Your task to perform on an android device: refresh tabs in the chrome app Image 0: 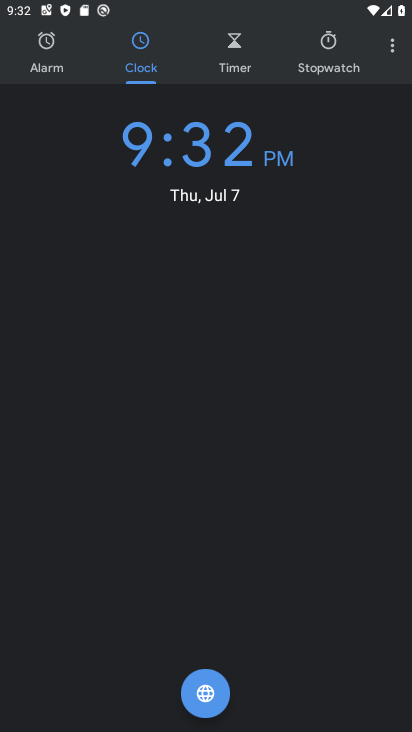
Step 0: press home button
Your task to perform on an android device: refresh tabs in the chrome app Image 1: 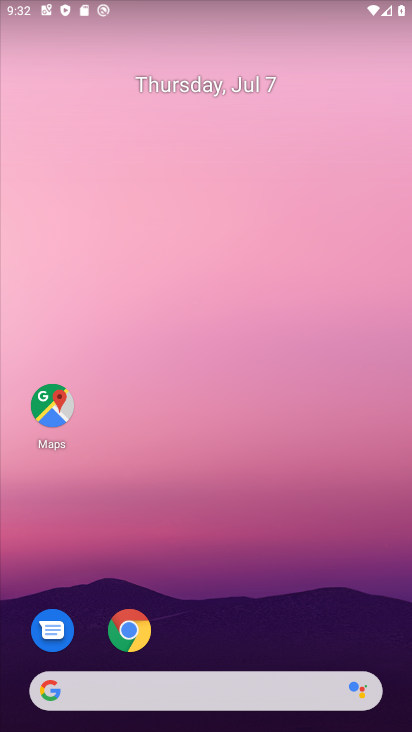
Step 1: drag from (171, 626) to (207, 261)
Your task to perform on an android device: refresh tabs in the chrome app Image 2: 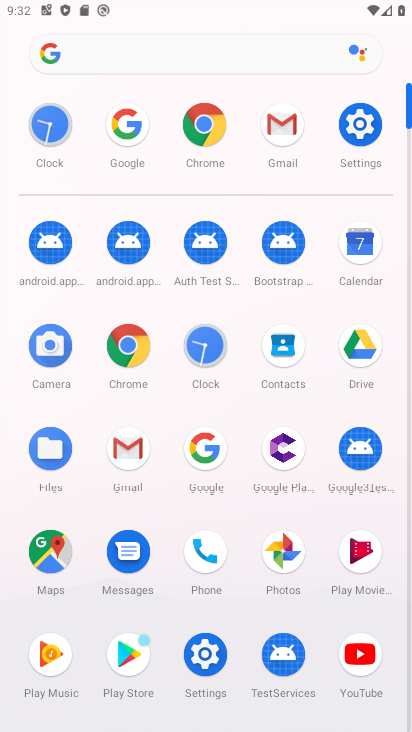
Step 2: click (197, 139)
Your task to perform on an android device: refresh tabs in the chrome app Image 3: 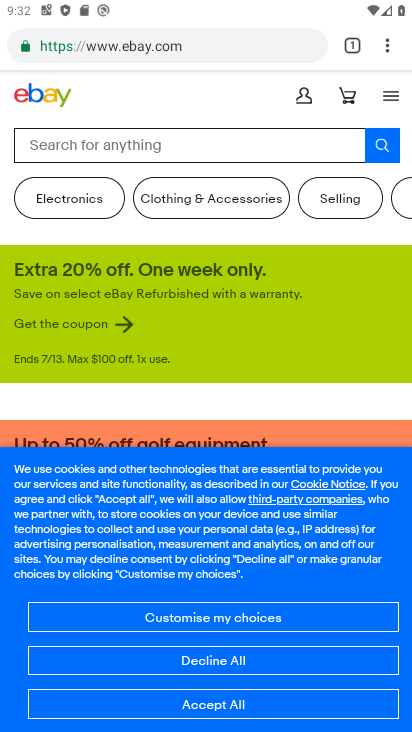
Step 3: click (386, 41)
Your task to perform on an android device: refresh tabs in the chrome app Image 4: 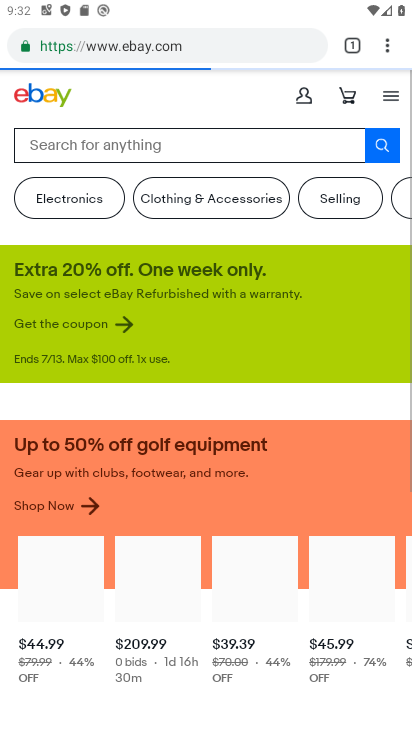
Step 4: click (386, 41)
Your task to perform on an android device: refresh tabs in the chrome app Image 5: 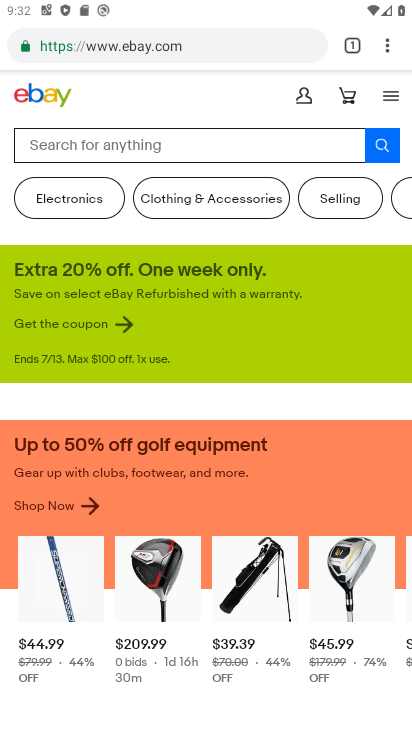
Step 5: click (387, 41)
Your task to perform on an android device: refresh tabs in the chrome app Image 6: 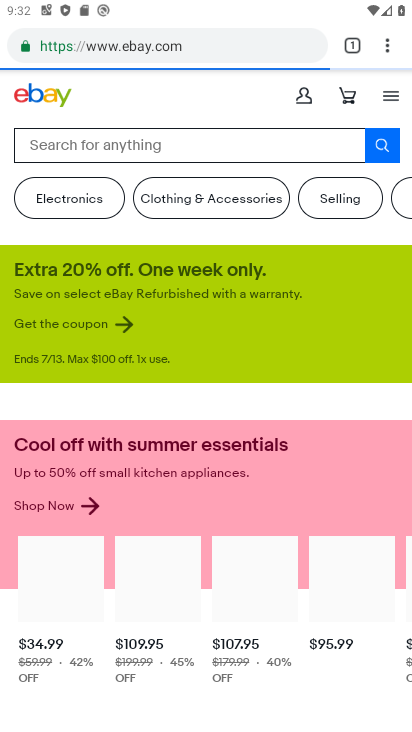
Step 6: click (387, 41)
Your task to perform on an android device: refresh tabs in the chrome app Image 7: 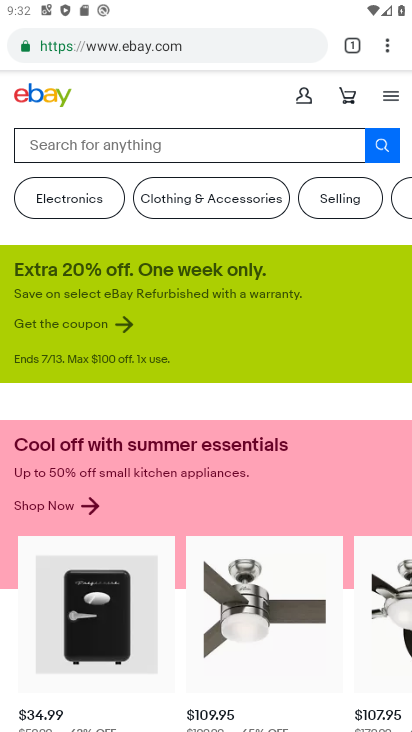
Step 7: click (393, 46)
Your task to perform on an android device: refresh tabs in the chrome app Image 8: 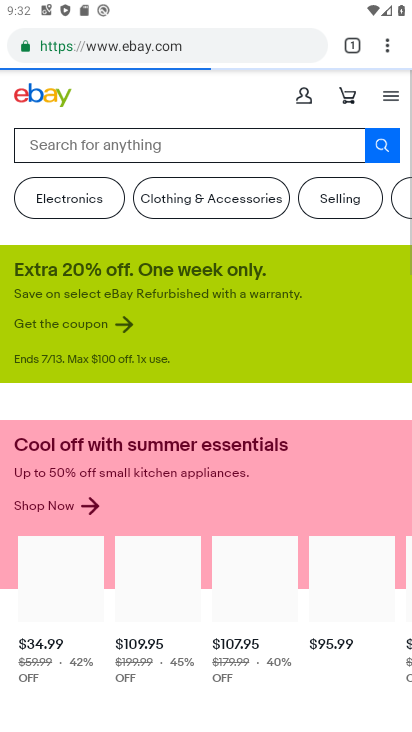
Step 8: click (391, 43)
Your task to perform on an android device: refresh tabs in the chrome app Image 9: 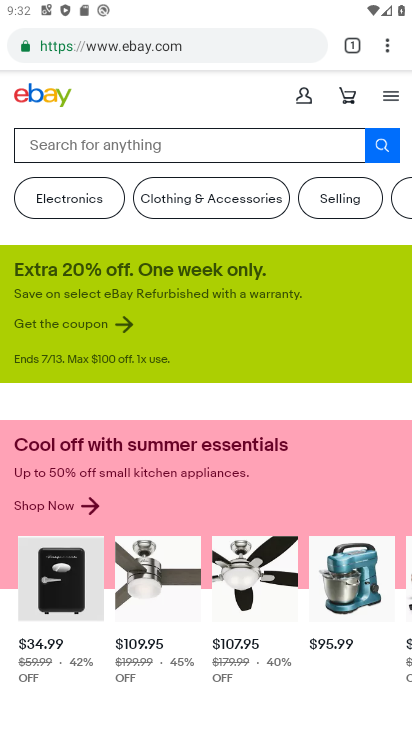
Step 9: click (391, 43)
Your task to perform on an android device: refresh tabs in the chrome app Image 10: 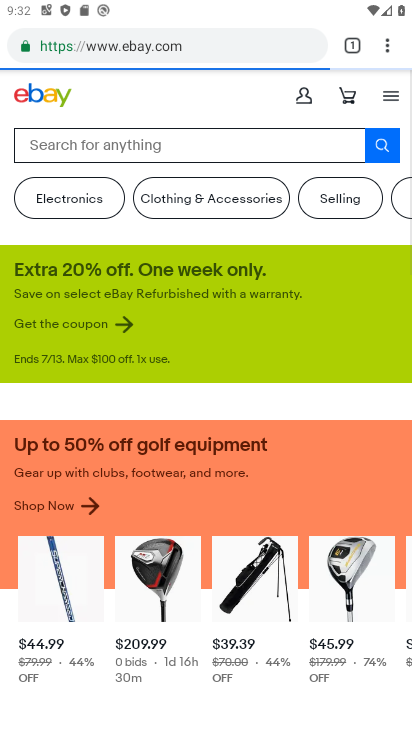
Step 10: click (391, 43)
Your task to perform on an android device: refresh tabs in the chrome app Image 11: 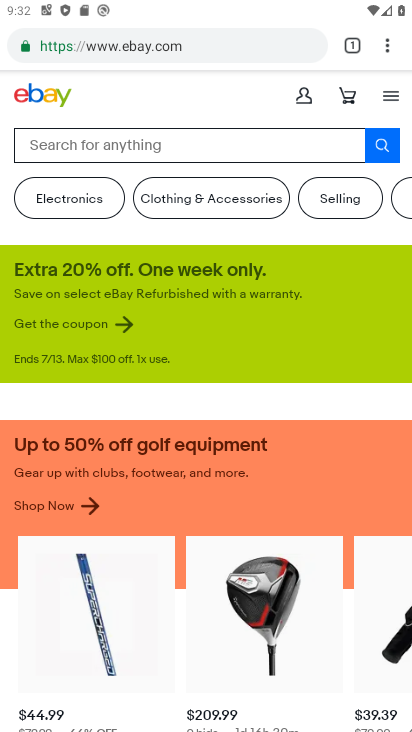
Step 11: click (391, 55)
Your task to perform on an android device: refresh tabs in the chrome app Image 12: 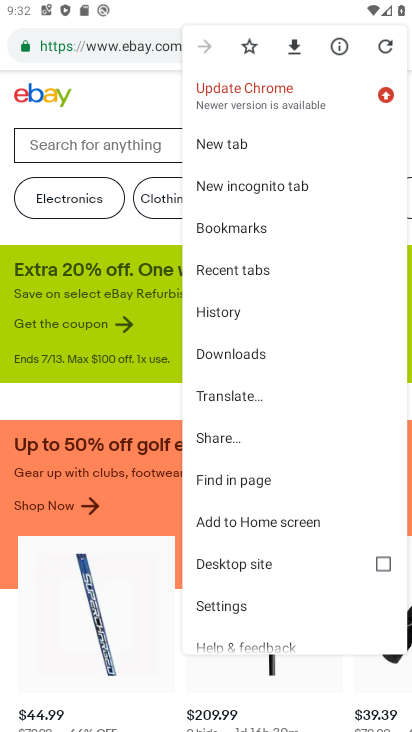
Step 12: click (384, 45)
Your task to perform on an android device: refresh tabs in the chrome app Image 13: 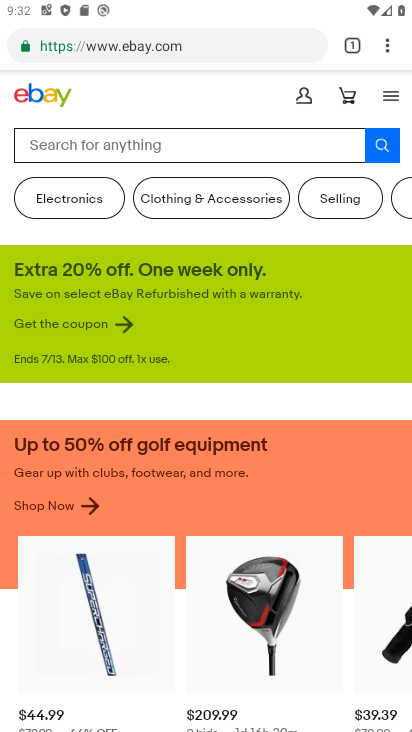
Step 13: task complete